Your task to perform on an android device: all mails in gmail Image 0: 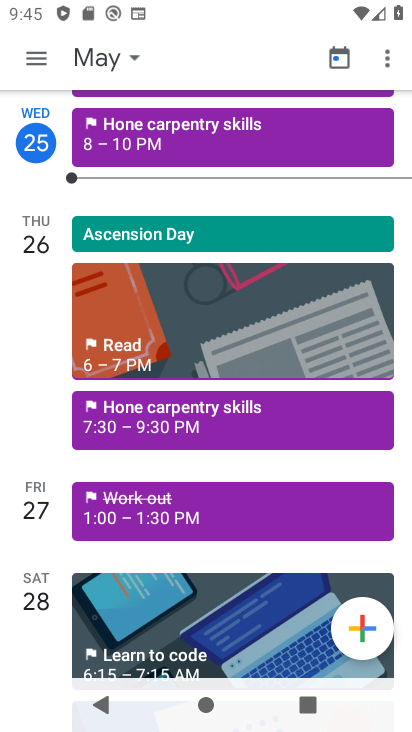
Step 0: press home button
Your task to perform on an android device: all mails in gmail Image 1: 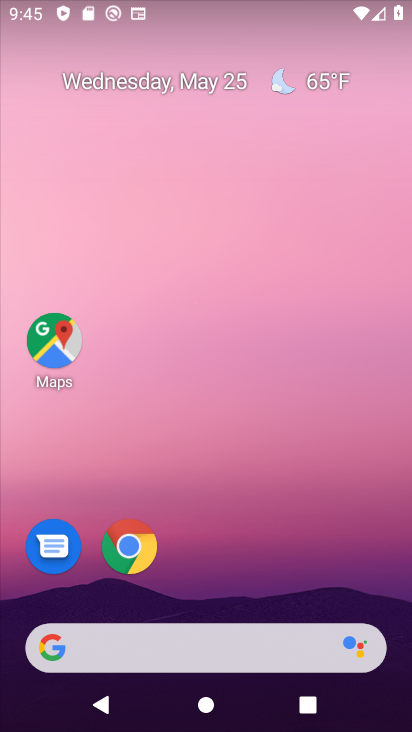
Step 1: drag from (243, 526) to (199, 67)
Your task to perform on an android device: all mails in gmail Image 2: 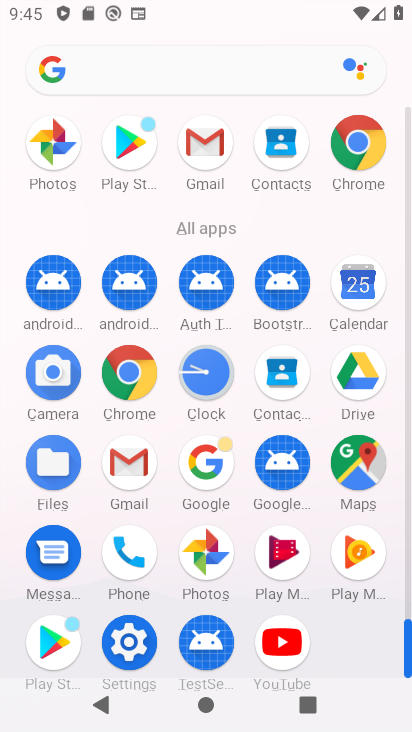
Step 2: click (202, 141)
Your task to perform on an android device: all mails in gmail Image 3: 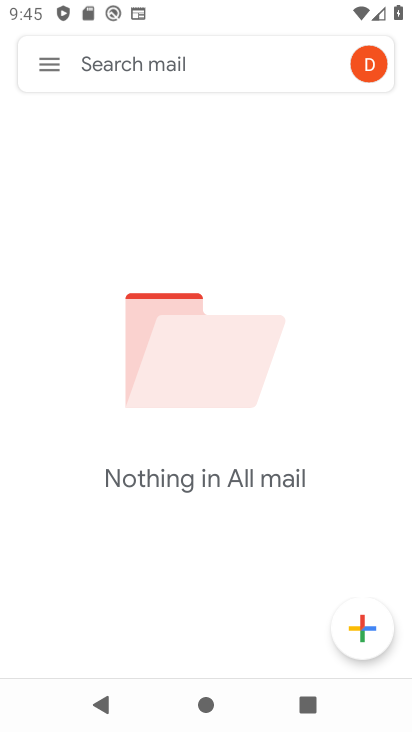
Step 3: click (36, 63)
Your task to perform on an android device: all mails in gmail Image 4: 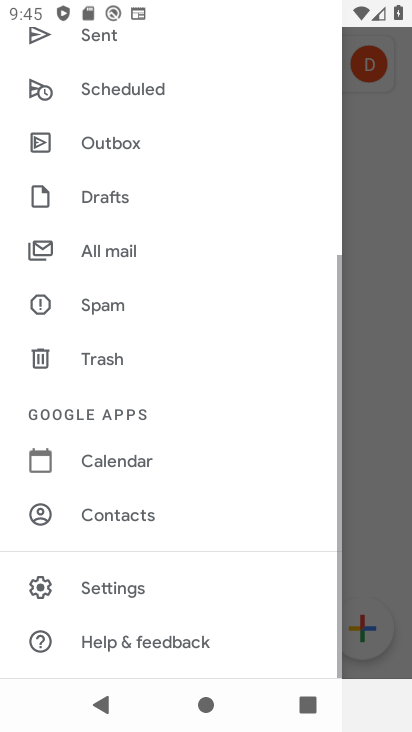
Step 4: click (117, 248)
Your task to perform on an android device: all mails in gmail Image 5: 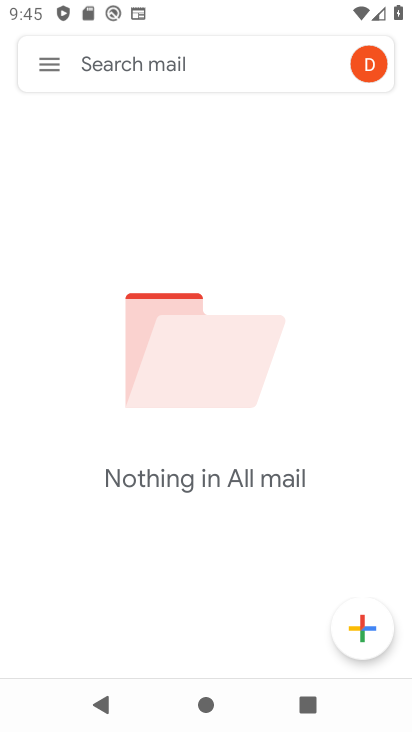
Step 5: task complete